Your task to perform on an android device: toggle sleep mode Image 0: 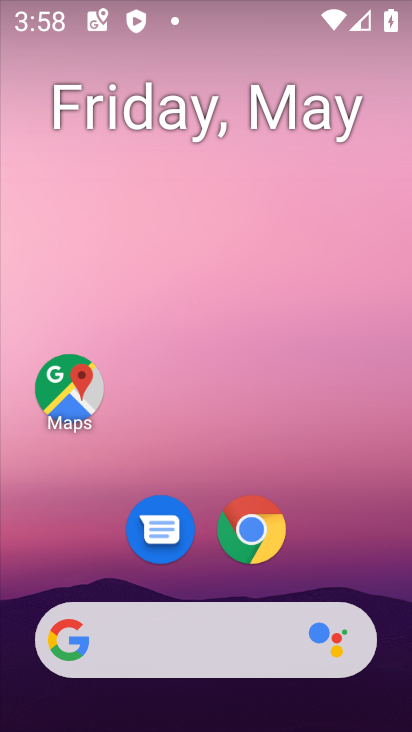
Step 0: drag from (146, 624) to (192, 333)
Your task to perform on an android device: toggle sleep mode Image 1: 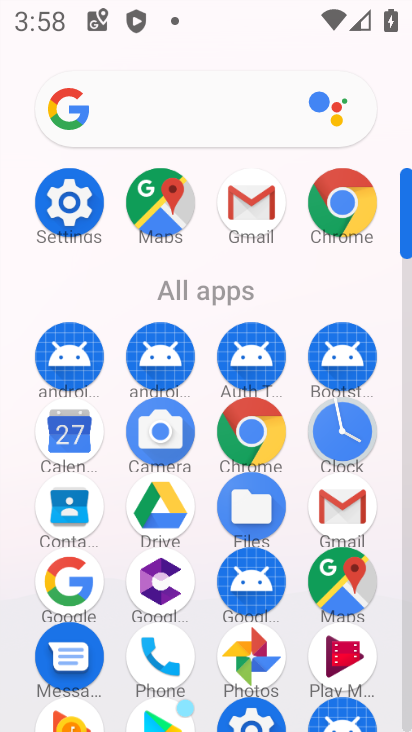
Step 1: click (72, 210)
Your task to perform on an android device: toggle sleep mode Image 2: 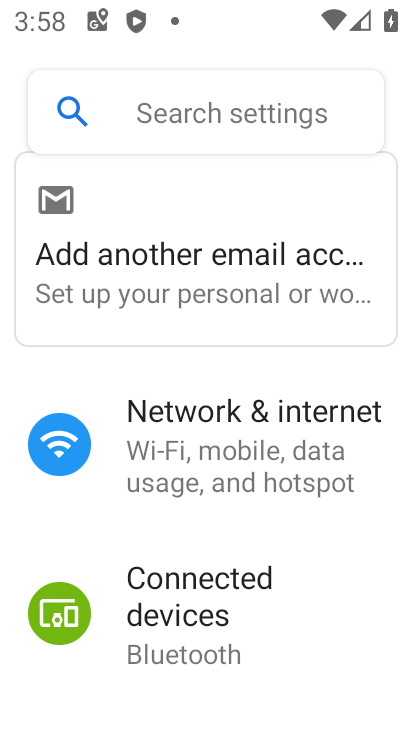
Step 2: drag from (126, 570) to (185, 272)
Your task to perform on an android device: toggle sleep mode Image 3: 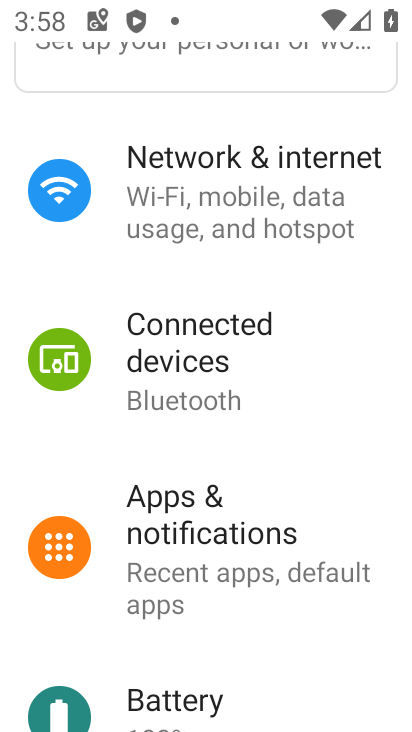
Step 3: drag from (136, 580) to (170, 441)
Your task to perform on an android device: toggle sleep mode Image 4: 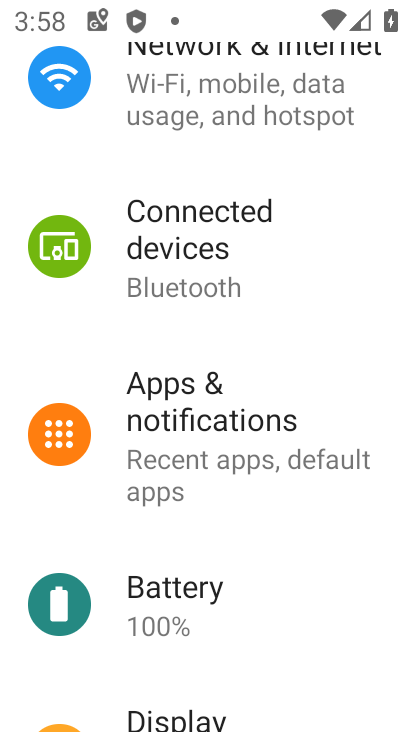
Step 4: drag from (156, 583) to (208, 432)
Your task to perform on an android device: toggle sleep mode Image 5: 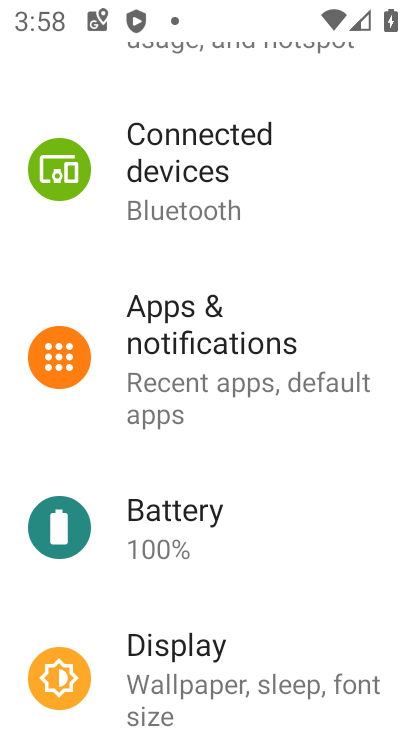
Step 5: drag from (171, 627) to (213, 483)
Your task to perform on an android device: toggle sleep mode Image 6: 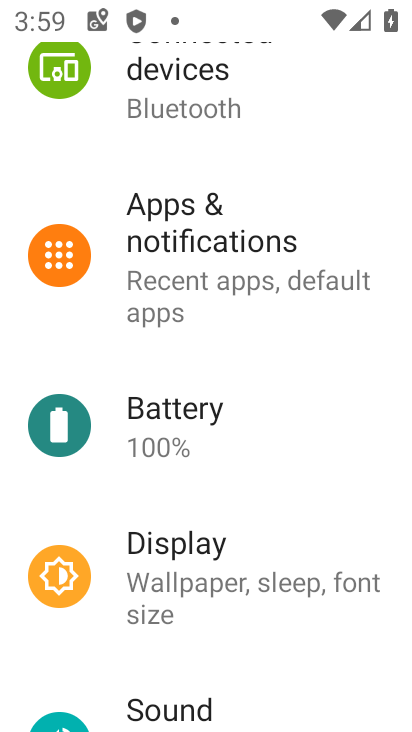
Step 6: click (203, 554)
Your task to perform on an android device: toggle sleep mode Image 7: 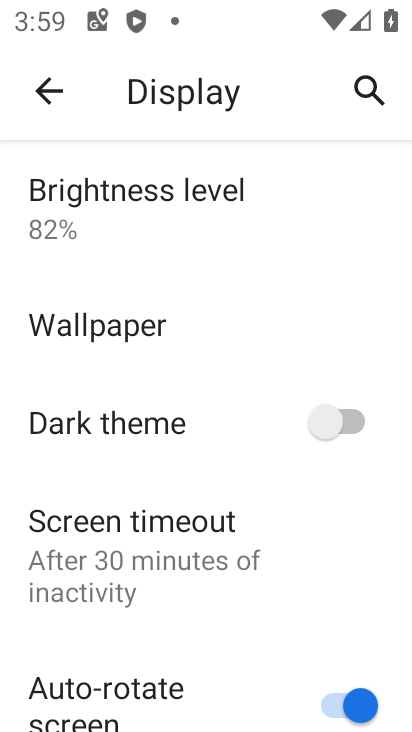
Step 7: task complete